Your task to perform on an android device: change the clock display to show seconds Image 0: 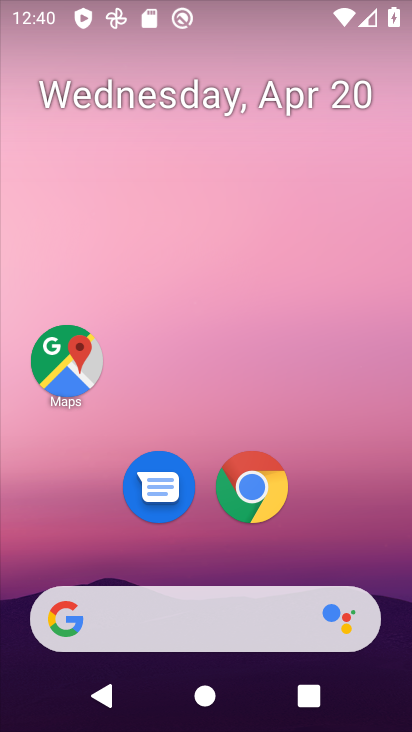
Step 0: drag from (389, 592) to (278, 103)
Your task to perform on an android device: change the clock display to show seconds Image 1: 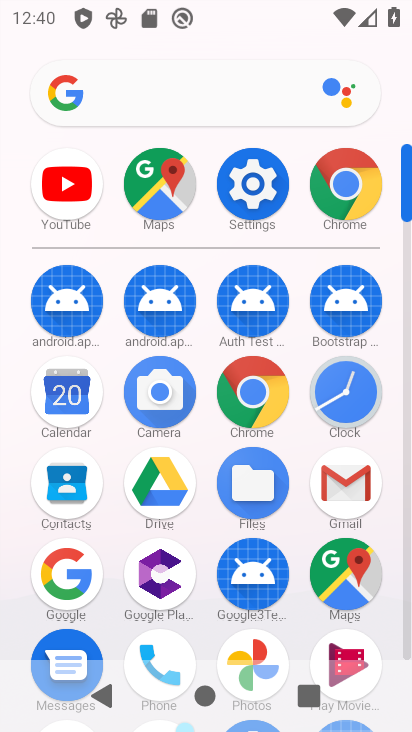
Step 1: click (353, 384)
Your task to perform on an android device: change the clock display to show seconds Image 2: 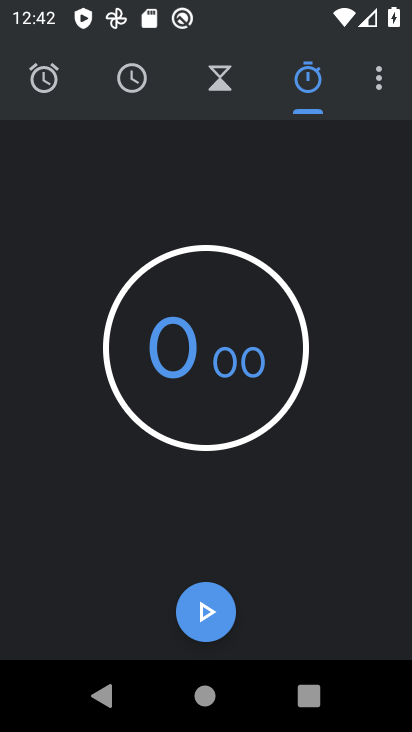
Step 2: click (379, 70)
Your task to perform on an android device: change the clock display to show seconds Image 3: 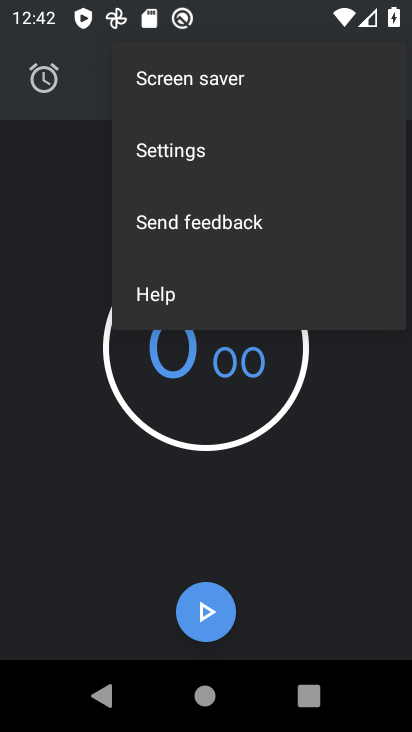
Step 3: click (150, 160)
Your task to perform on an android device: change the clock display to show seconds Image 4: 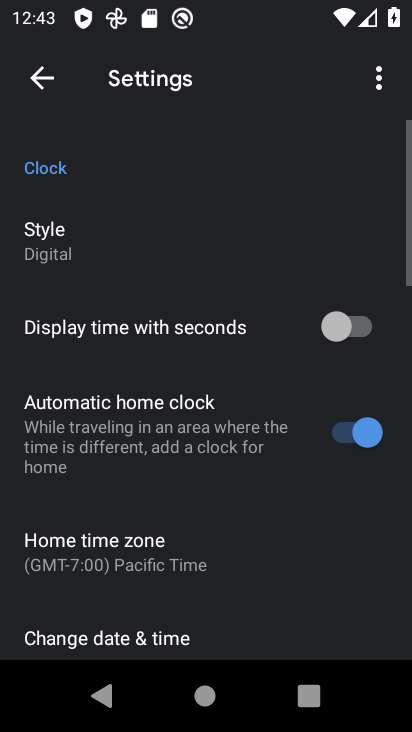
Step 4: click (310, 308)
Your task to perform on an android device: change the clock display to show seconds Image 5: 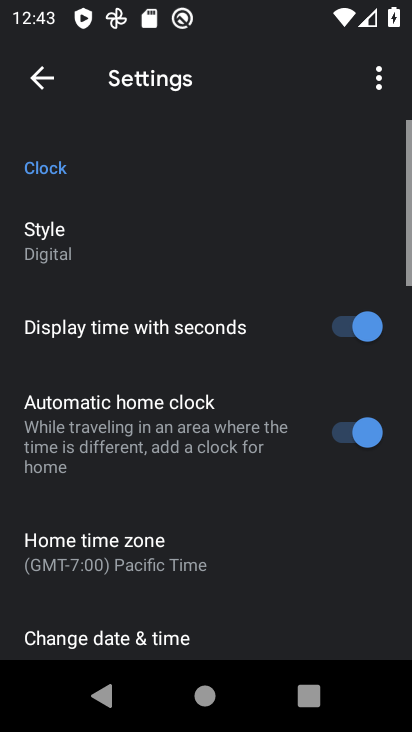
Step 5: task complete